Your task to perform on an android device: What's the news in Brazil? Image 0: 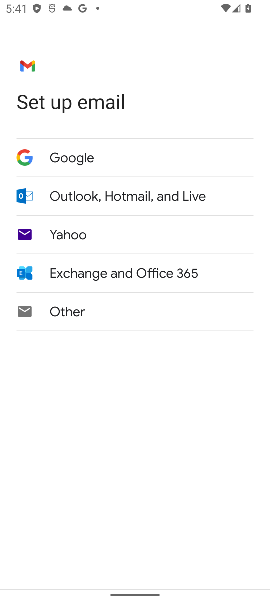
Step 0: press home button
Your task to perform on an android device: What's the news in Brazil? Image 1: 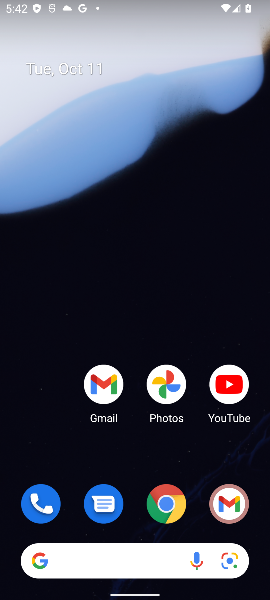
Step 1: click (113, 548)
Your task to perform on an android device: What's the news in Brazil? Image 2: 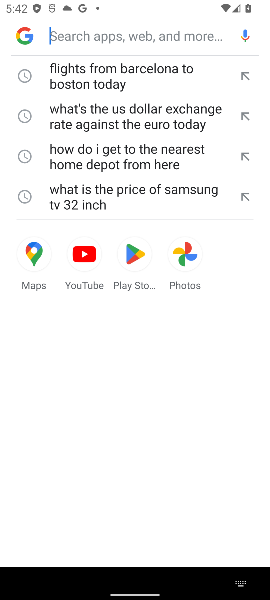
Step 2: click (78, 28)
Your task to perform on an android device: What's the news in Brazil? Image 3: 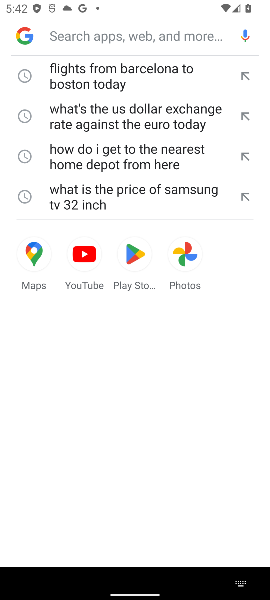
Step 3: type "What's the news in Brazil?"
Your task to perform on an android device: What's the news in Brazil? Image 4: 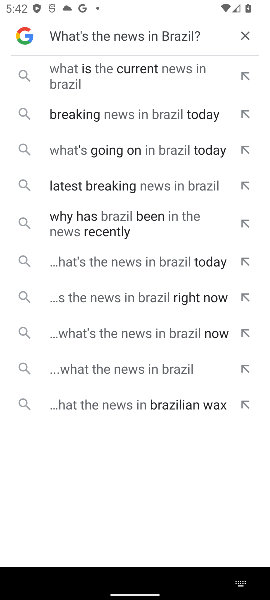
Step 4: click (130, 80)
Your task to perform on an android device: What's the news in Brazil? Image 5: 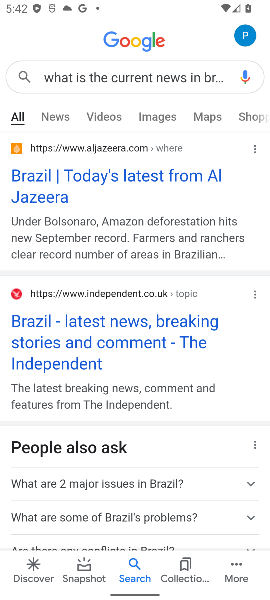
Step 5: click (90, 326)
Your task to perform on an android device: What's the news in Brazil? Image 6: 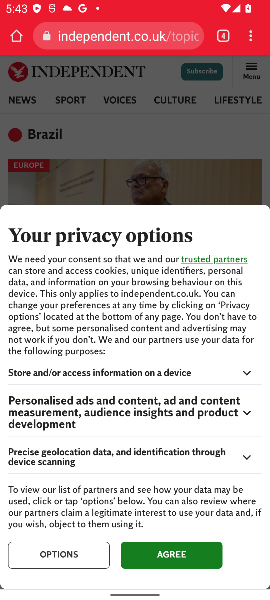
Step 6: task complete